Your task to perform on an android device: What is the news today? Image 0: 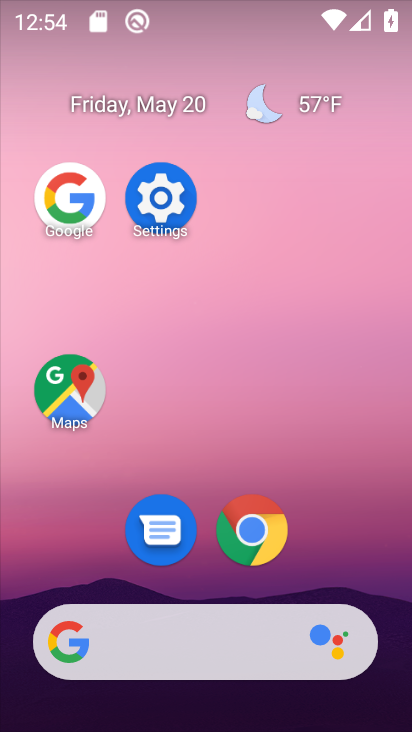
Step 0: click (79, 204)
Your task to perform on an android device: What is the news today? Image 1: 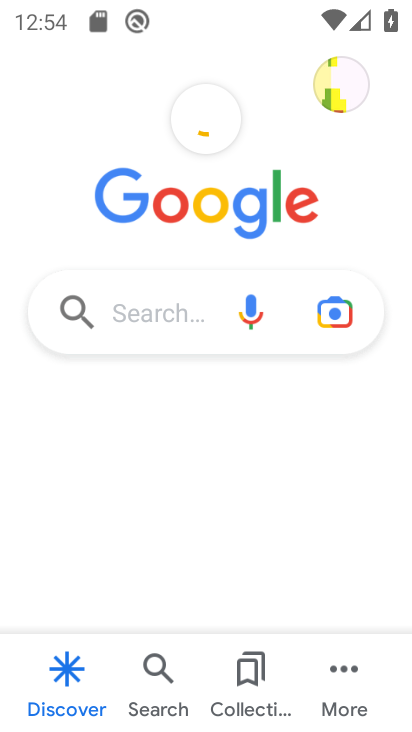
Step 1: click (170, 323)
Your task to perform on an android device: What is the news today? Image 2: 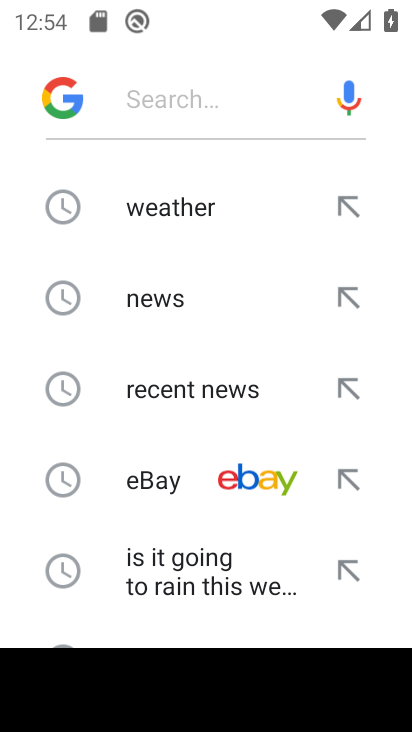
Step 2: click (165, 301)
Your task to perform on an android device: What is the news today? Image 3: 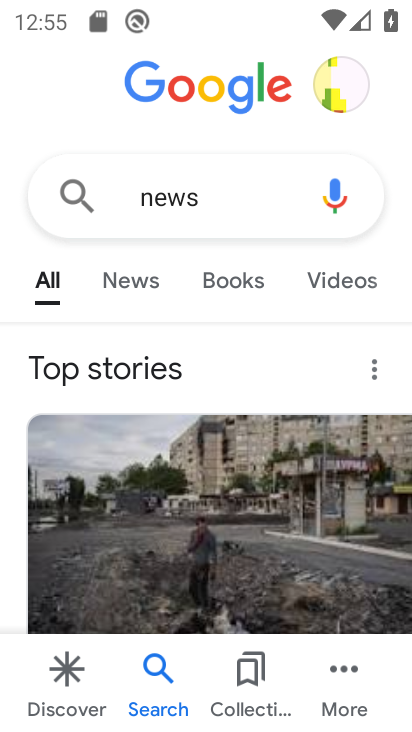
Step 3: task complete